Your task to perform on an android device: Show me the alarms in the clock app Image 0: 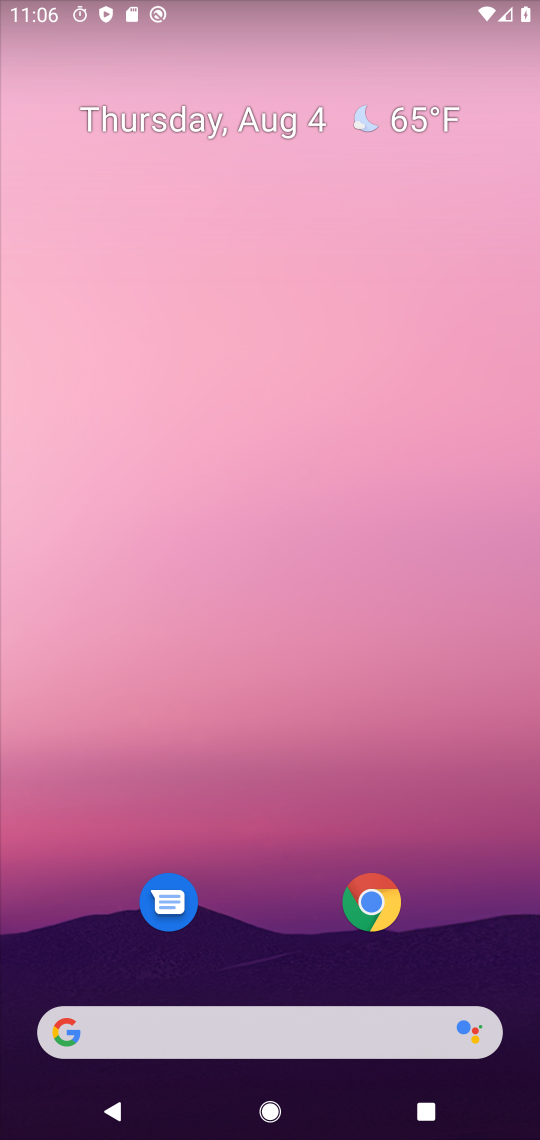
Step 0: press home button
Your task to perform on an android device: Show me the alarms in the clock app Image 1: 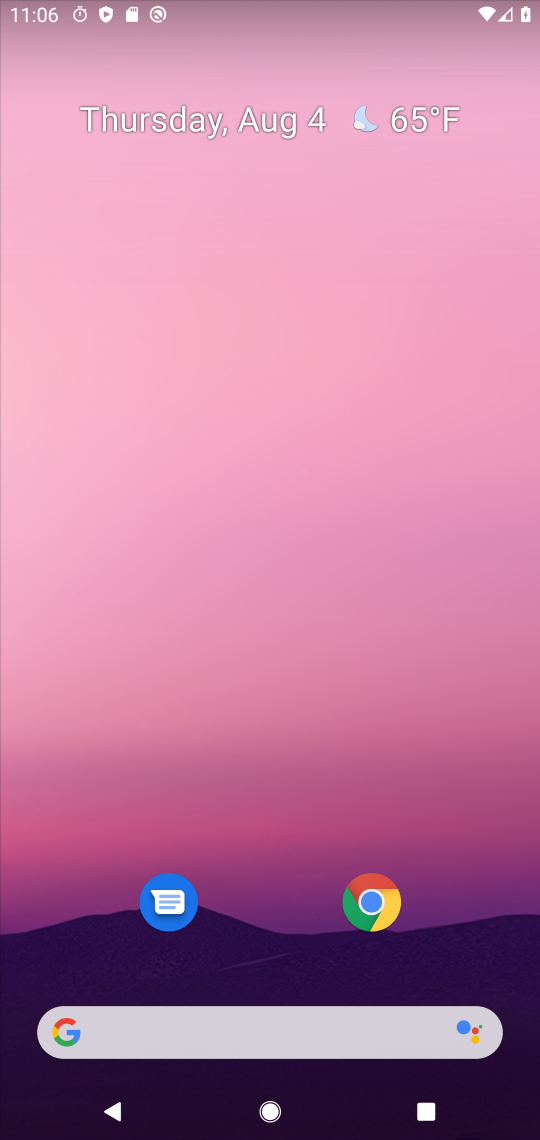
Step 1: drag from (360, 1067) to (322, 328)
Your task to perform on an android device: Show me the alarms in the clock app Image 2: 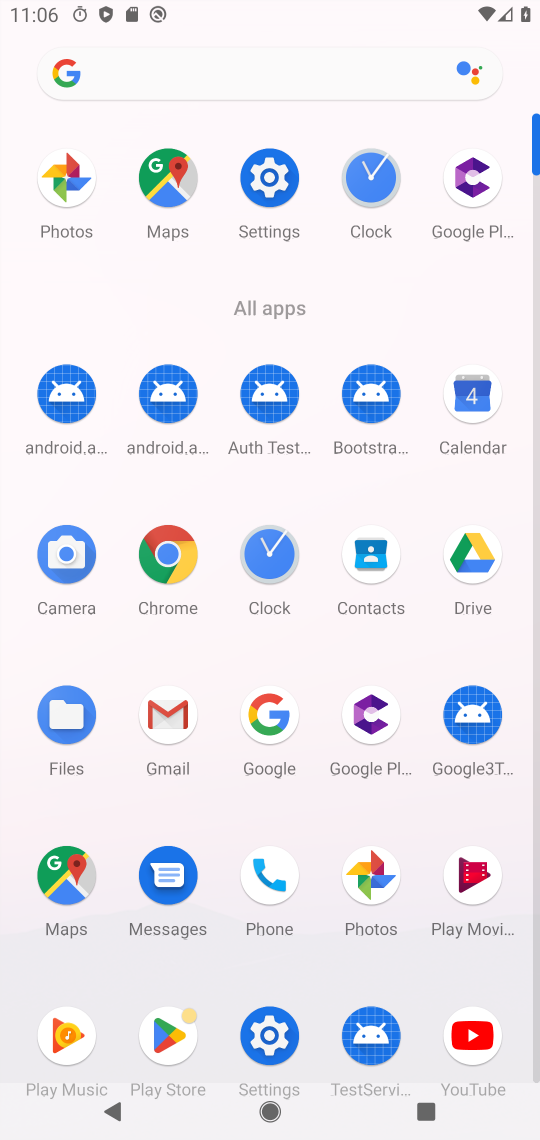
Step 2: click (275, 561)
Your task to perform on an android device: Show me the alarms in the clock app Image 3: 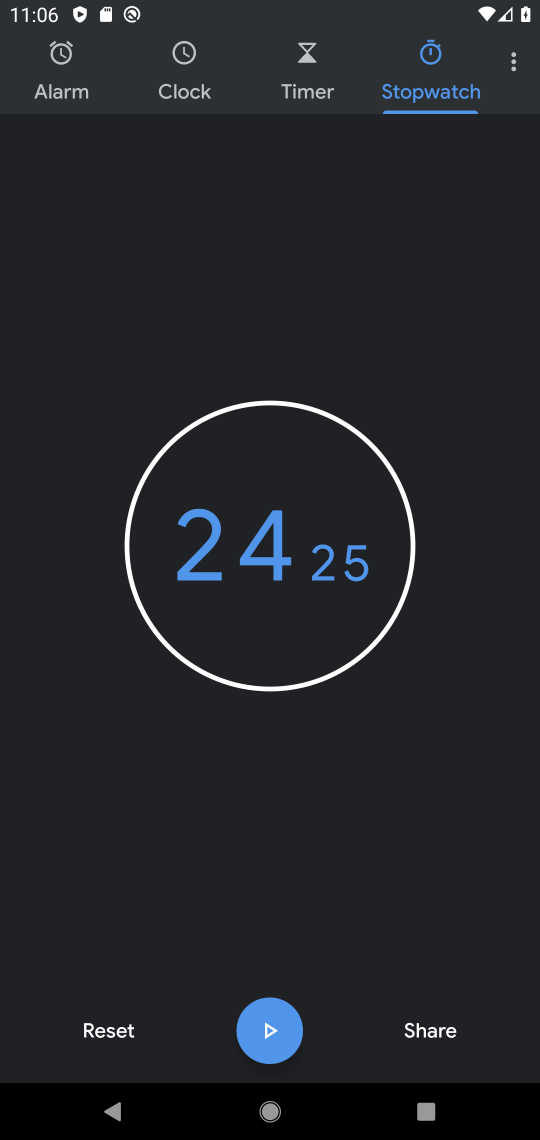
Step 3: click (61, 86)
Your task to perform on an android device: Show me the alarms in the clock app Image 4: 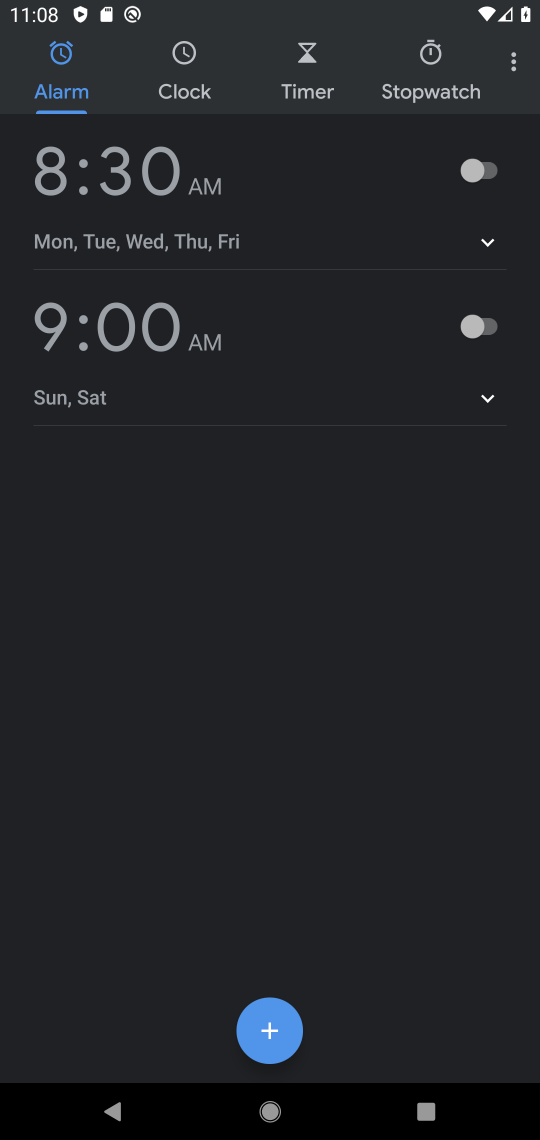
Step 4: task complete